Your task to perform on an android device: see sites visited before in the chrome app Image 0: 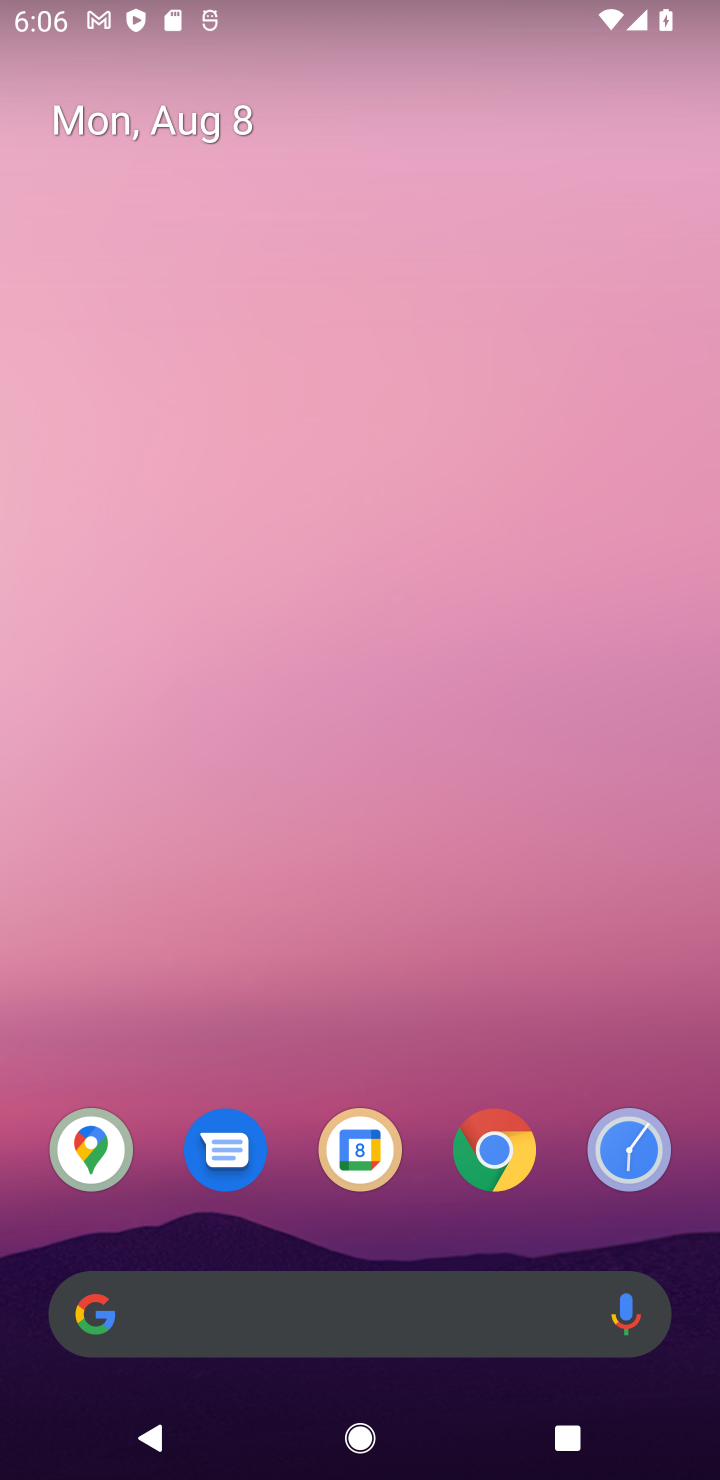
Step 0: click (514, 1155)
Your task to perform on an android device: see sites visited before in the chrome app Image 1: 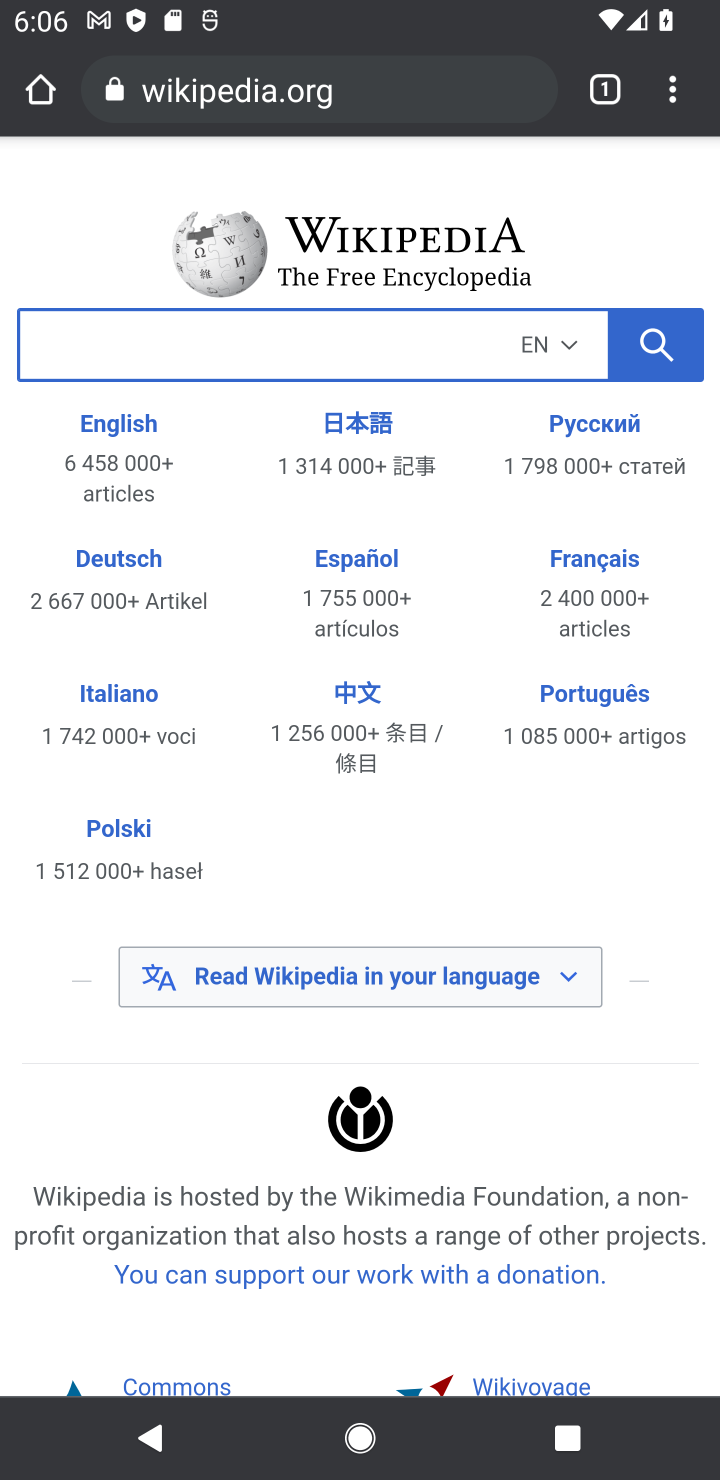
Step 1: click (668, 113)
Your task to perform on an android device: see sites visited before in the chrome app Image 2: 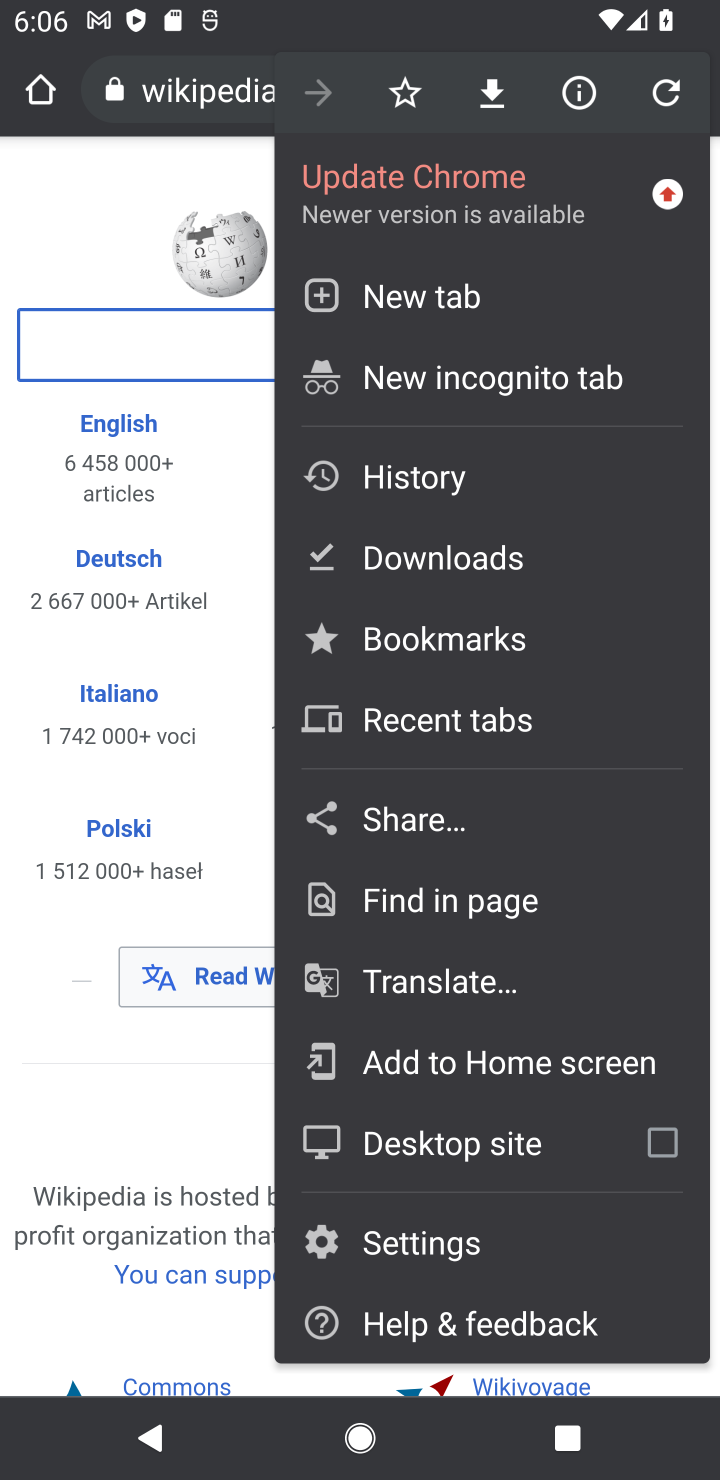
Step 2: click (411, 708)
Your task to perform on an android device: see sites visited before in the chrome app Image 3: 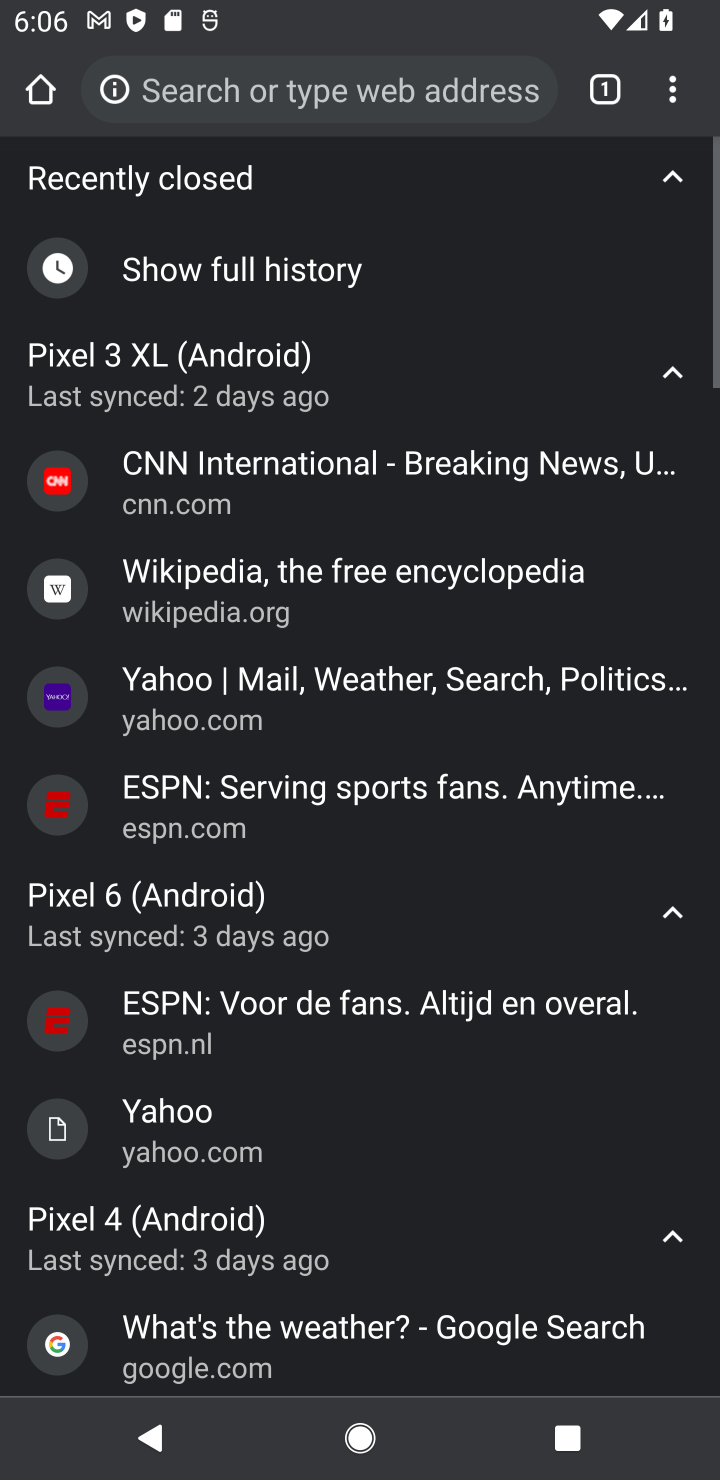
Step 3: task complete